Your task to perform on an android device: turn on wifi Image 0: 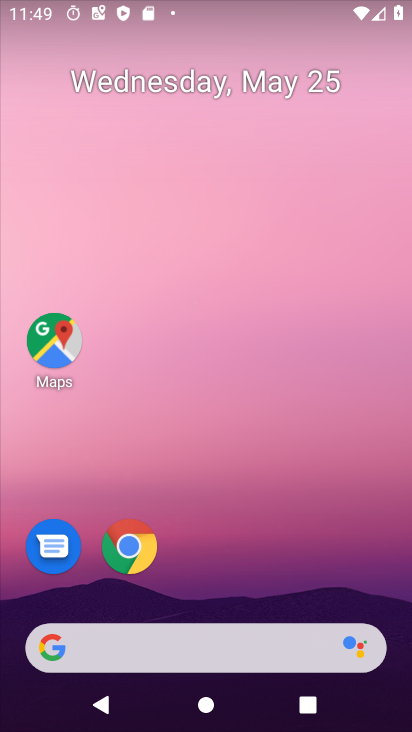
Step 0: drag from (225, 594) to (232, 10)
Your task to perform on an android device: turn on wifi Image 1: 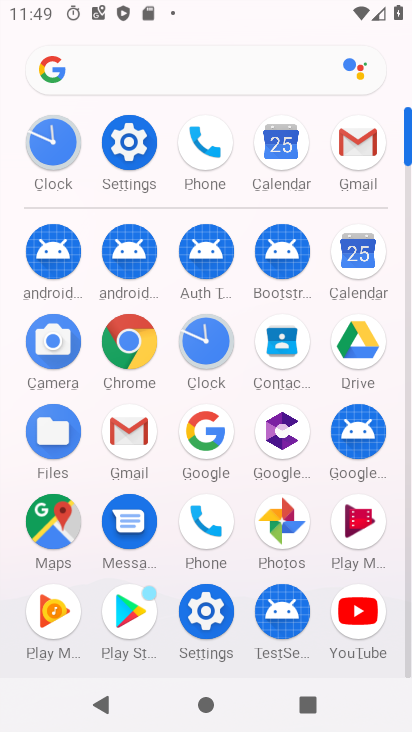
Step 1: click (137, 146)
Your task to perform on an android device: turn on wifi Image 2: 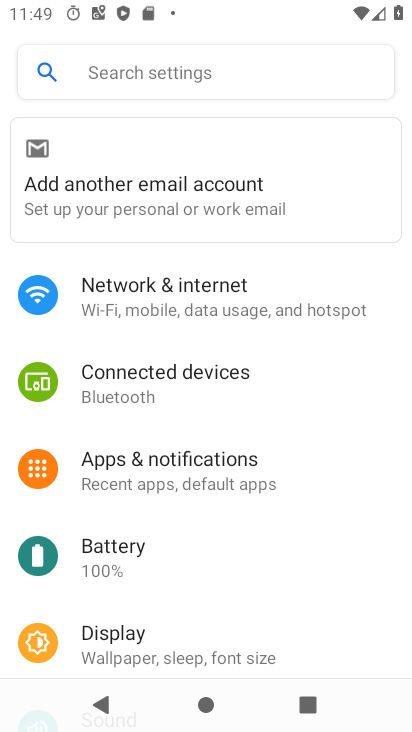
Step 2: click (178, 299)
Your task to perform on an android device: turn on wifi Image 3: 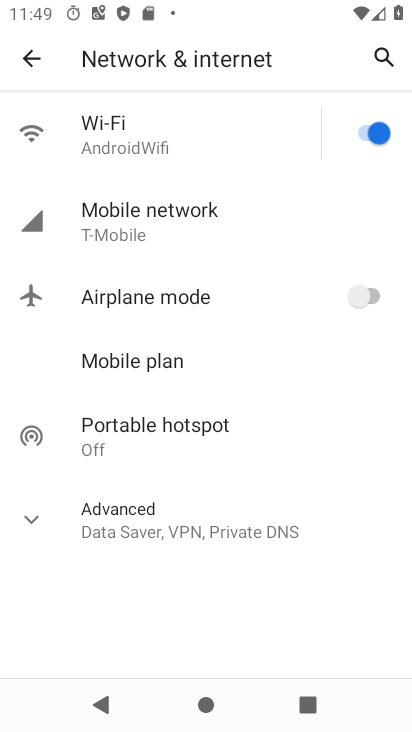
Step 3: task complete